Your task to perform on an android device: Search for "logitech g502" on ebay, select the first entry, and add it to the cart. Image 0: 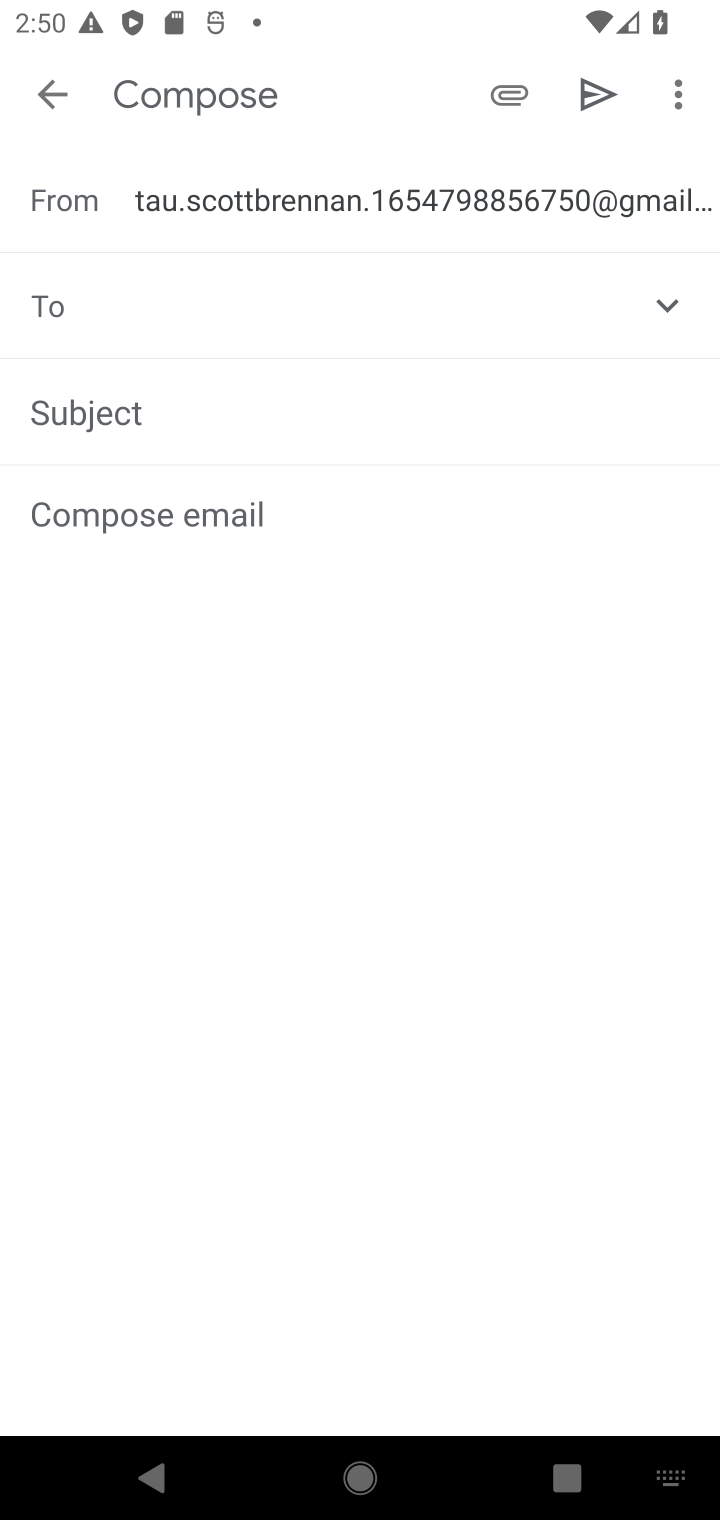
Step 0: press home button
Your task to perform on an android device: Search for "logitech g502" on ebay, select the first entry, and add it to the cart. Image 1: 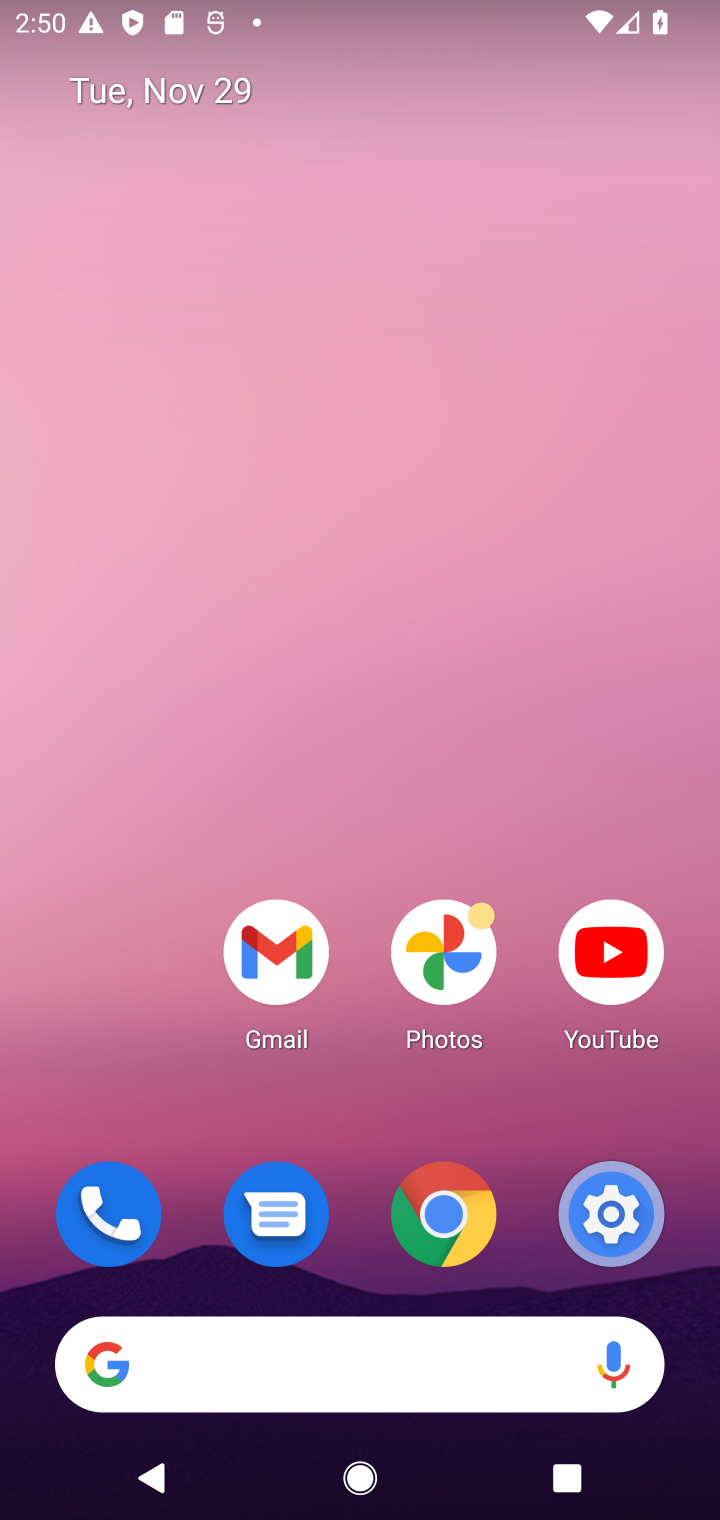
Step 1: click (346, 1335)
Your task to perform on an android device: Search for "logitech g502" on ebay, select the first entry, and add it to the cart. Image 2: 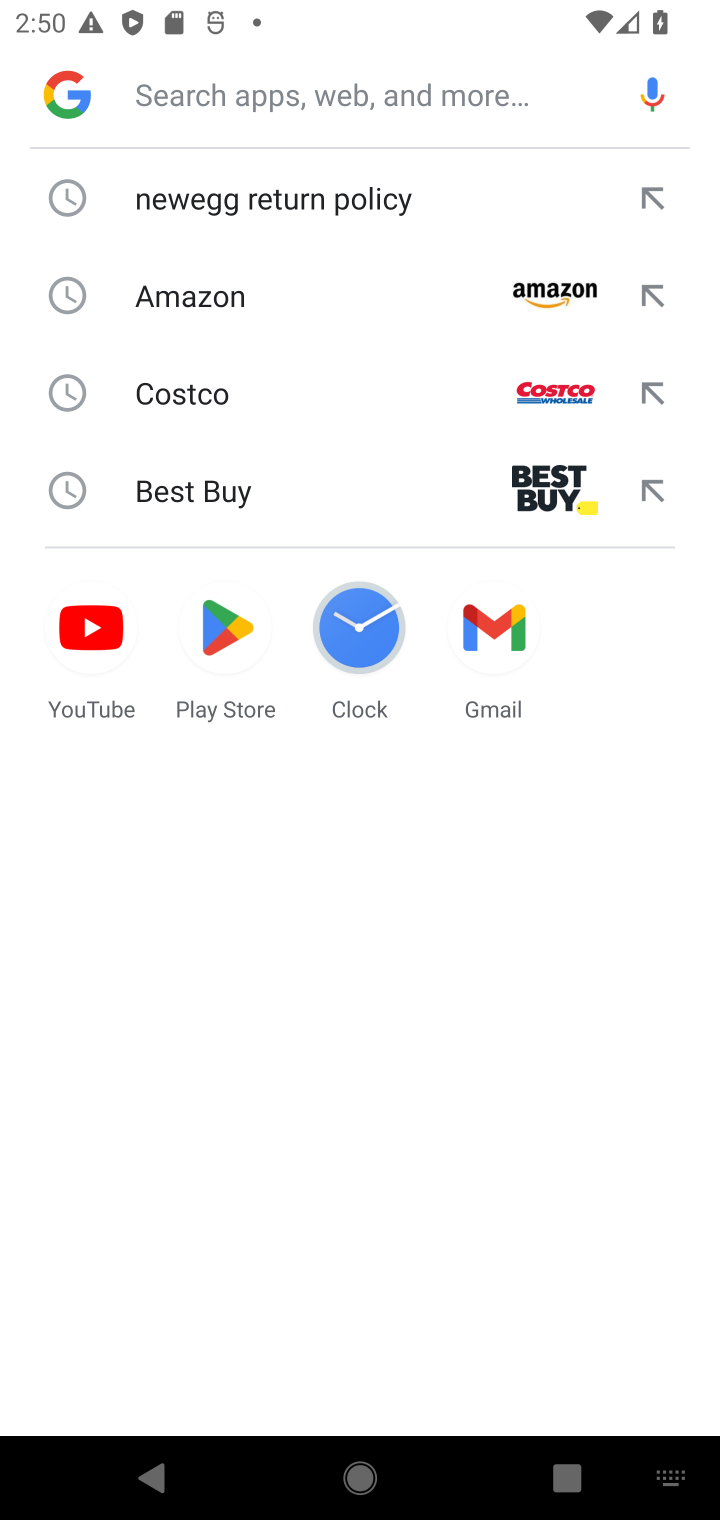
Step 2: type "EBAY.COM"
Your task to perform on an android device: Search for "logitech g502" on ebay, select the first entry, and add it to the cart. Image 3: 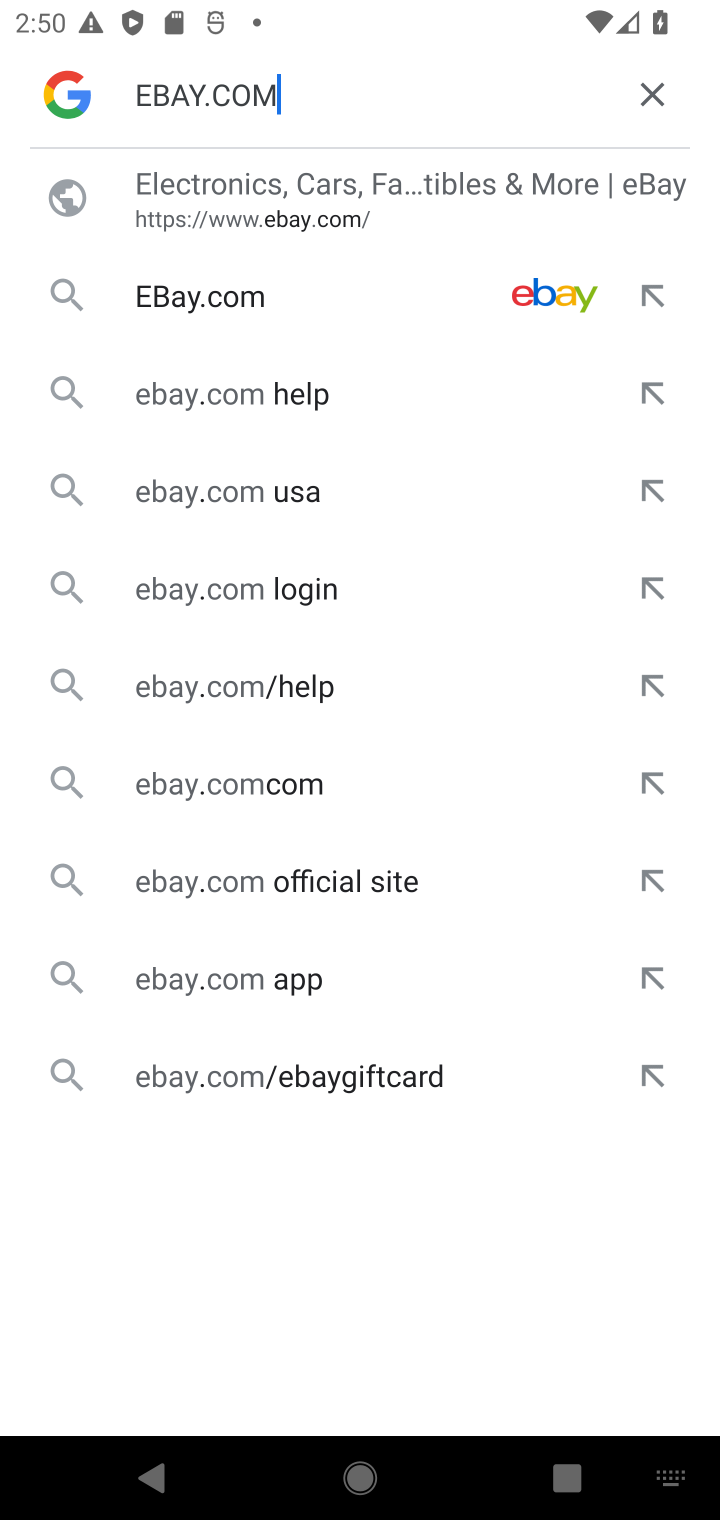
Step 3: click (266, 225)
Your task to perform on an android device: Search for "logitech g502" on ebay, select the first entry, and add it to the cart. Image 4: 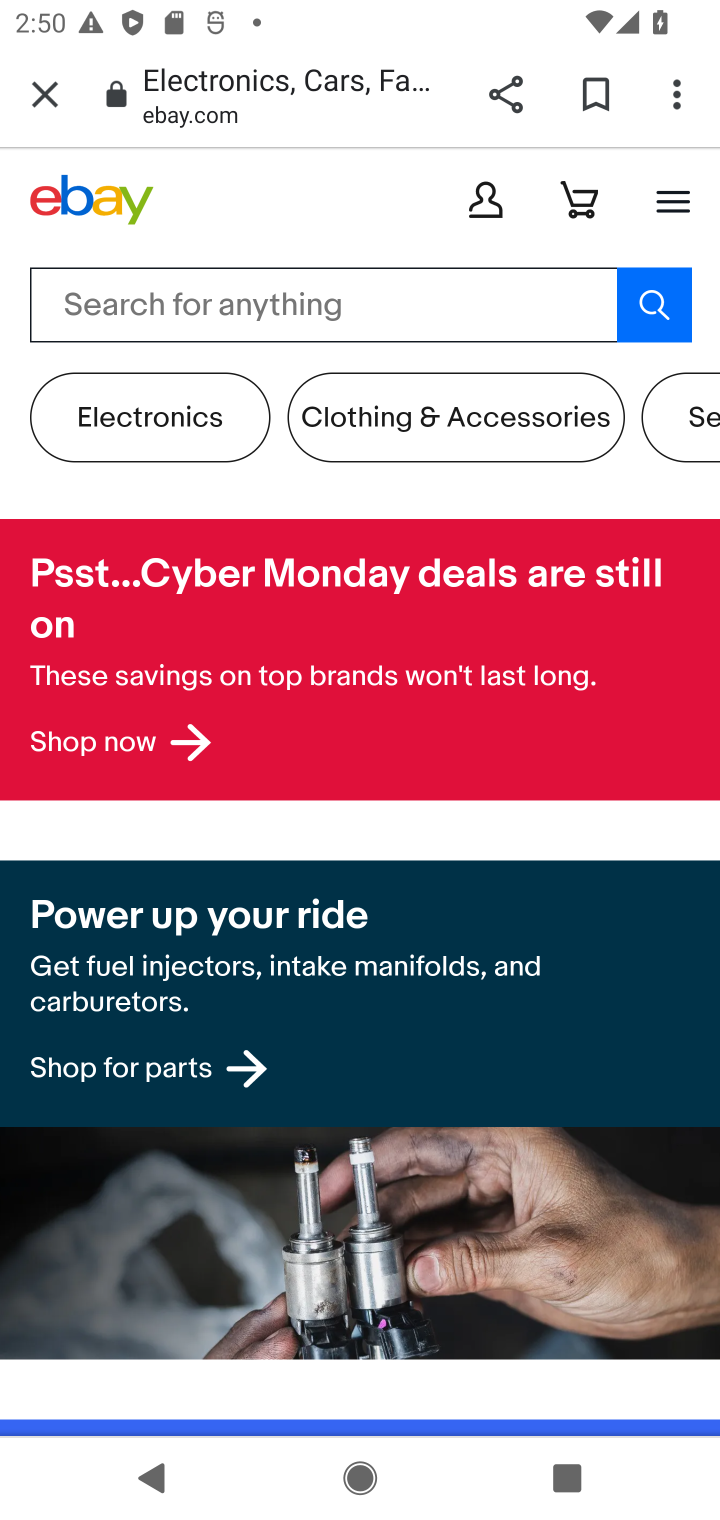
Step 4: click (307, 306)
Your task to perform on an android device: Search for "logitech g502" on ebay, select the first entry, and add it to the cart. Image 5: 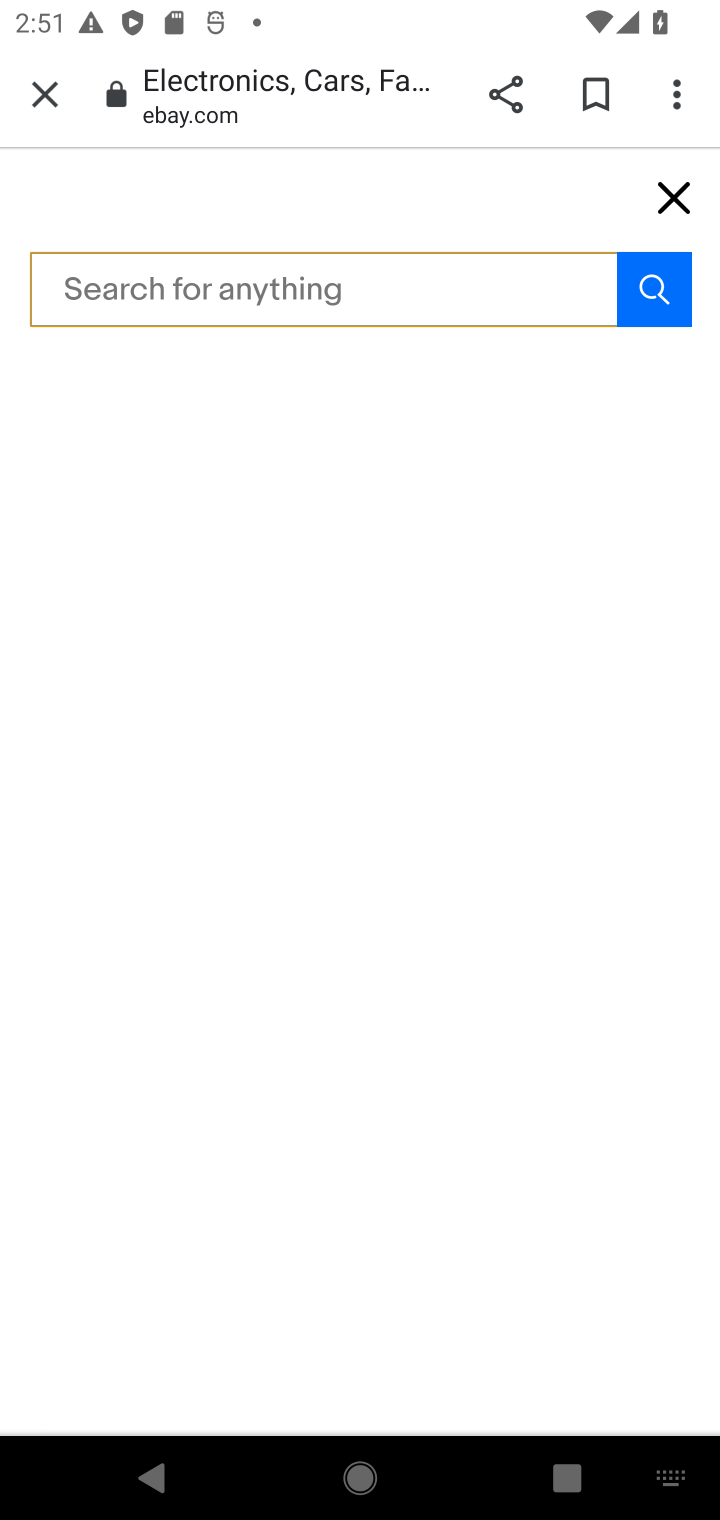
Step 5: type "LOGITECH"
Your task to perform on an android device: Search for "logitech g502" on ebay, select the first entry, and add it to the cart. Image 6: 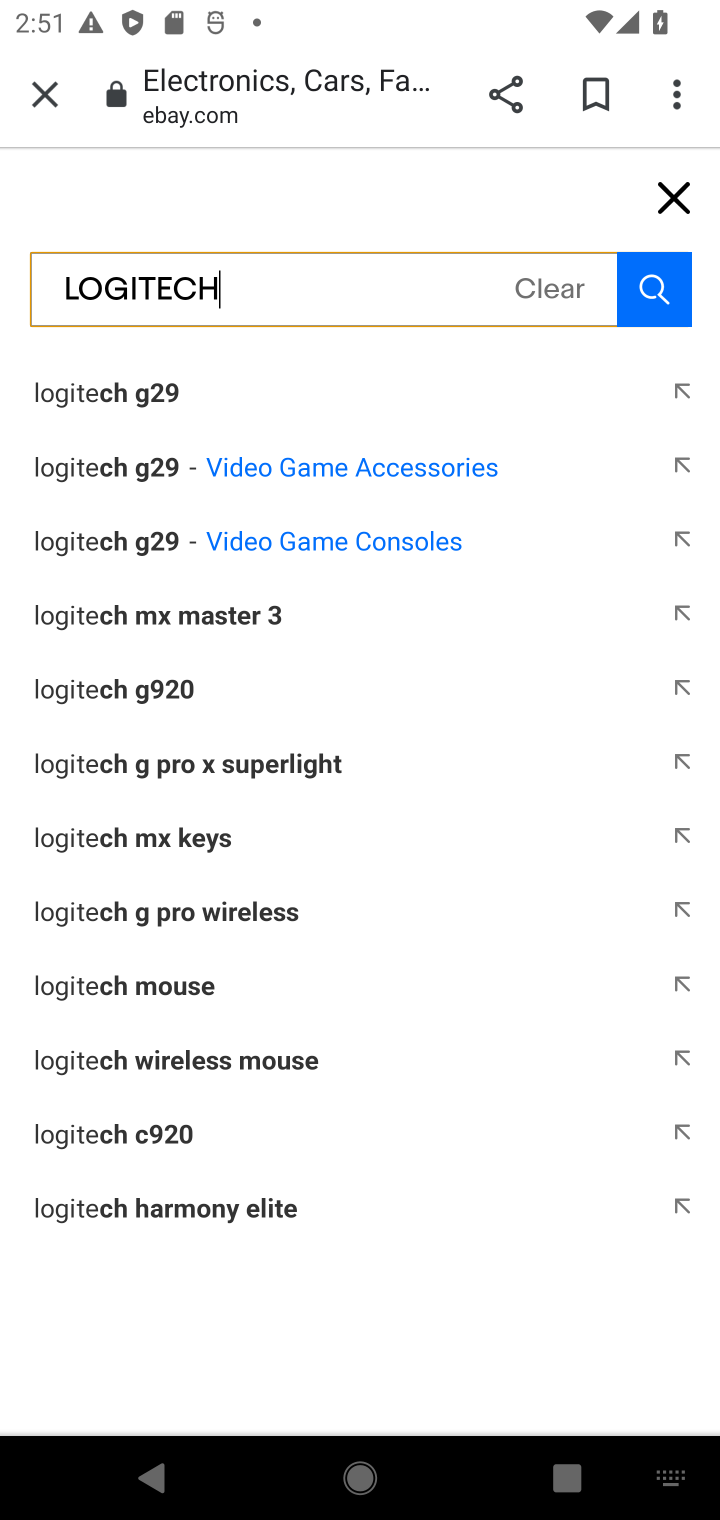
Step 6: click (277, 757)
Your task to perform on an android device: Search for "logitech g502" on ebay, select the first entry, and add it to the cart. Image 7: 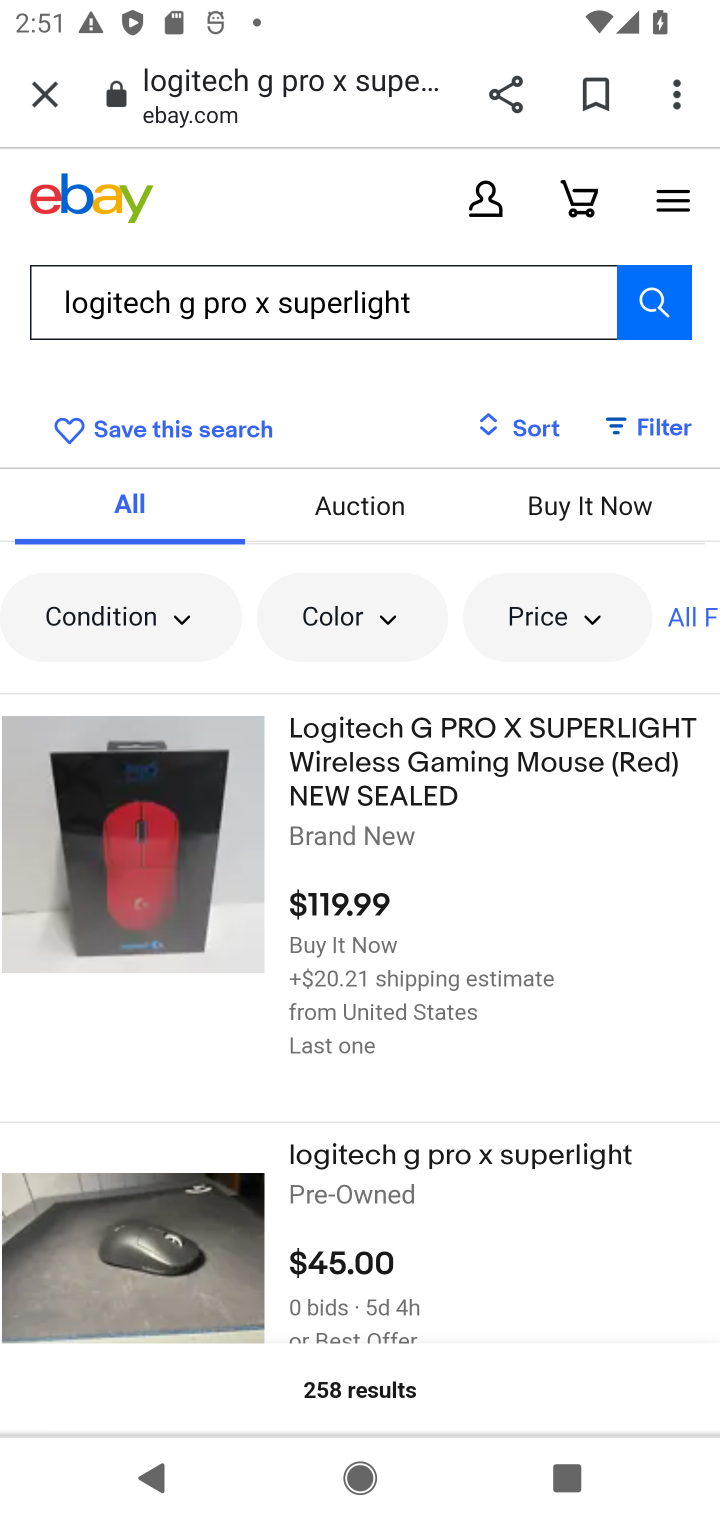
Step 7: click (576, 710)
Your task to perform on an android device: Search for "logitech g502" on ebay, select the first entry, and add it to the cart. Image 8: 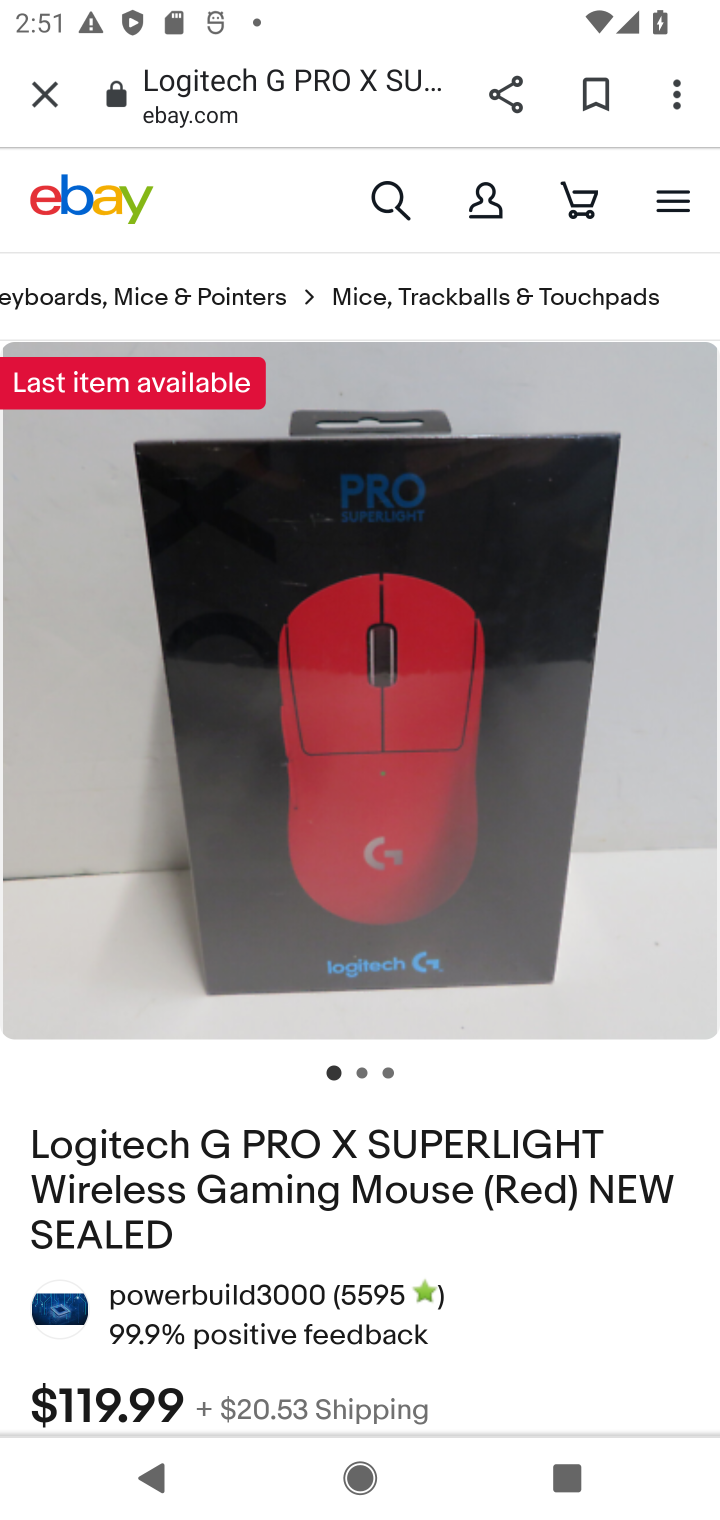
Step 8: task complete